Your task to perform on an android device: Open Maps and search for coffee Image 0: 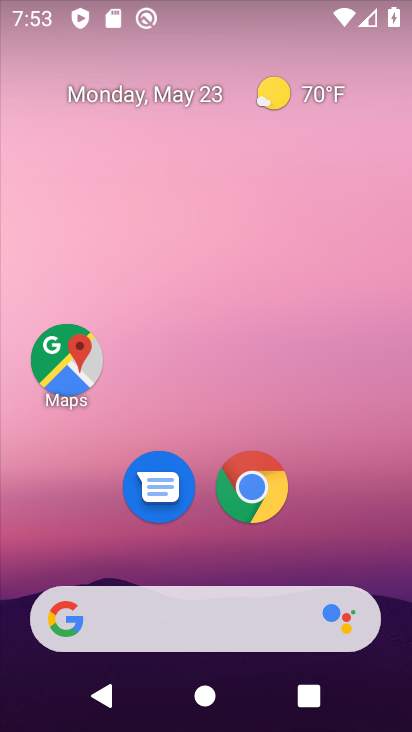
Step 0: click (70, 376)
Your task to perform on an android device: Open Maps and search for coffee Image 1: 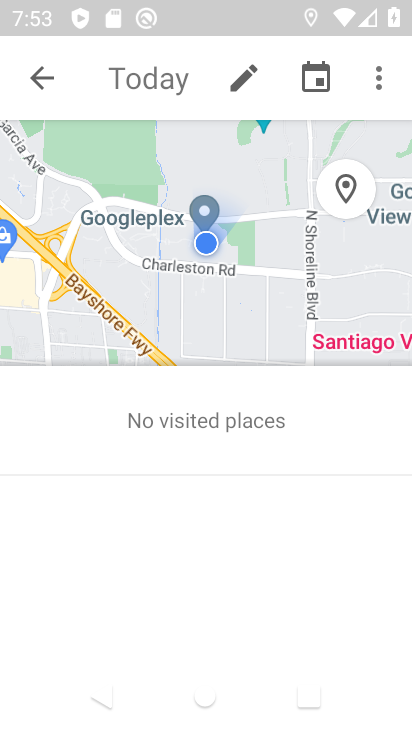
Step 1: press home button
Your task to perform on an android device: Open Maps and search for coffee Image 2: 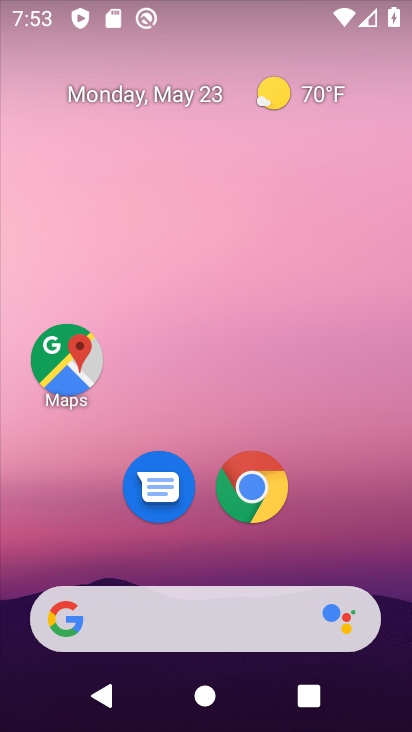
Step 2: click (69, 358)
Your task to perform on an android device: Open Maps and search for coffee Image 3: 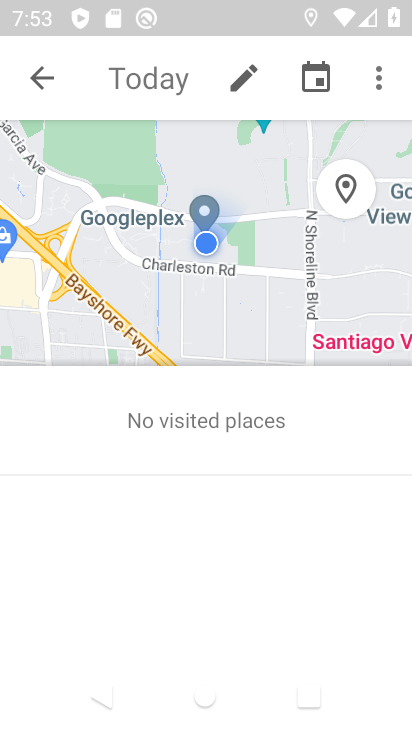
Step 3: click (33, 84)
Your task to perform on an android device: Open Maps and search for coffee Image 4: 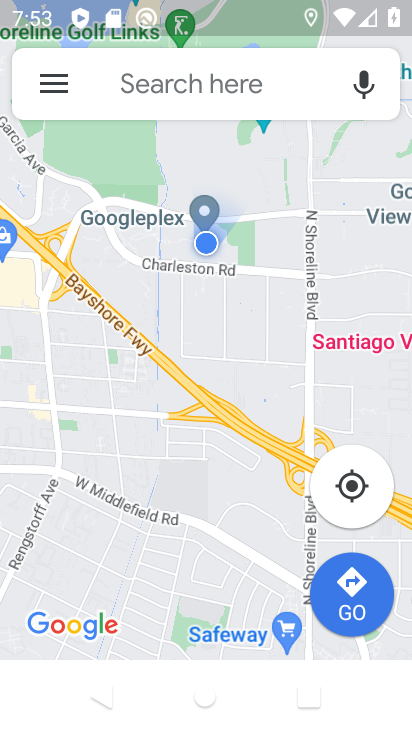
Step 4: click (170, 74)
Your task to perform on an android device: Open Maps and search for coffee Image 5: 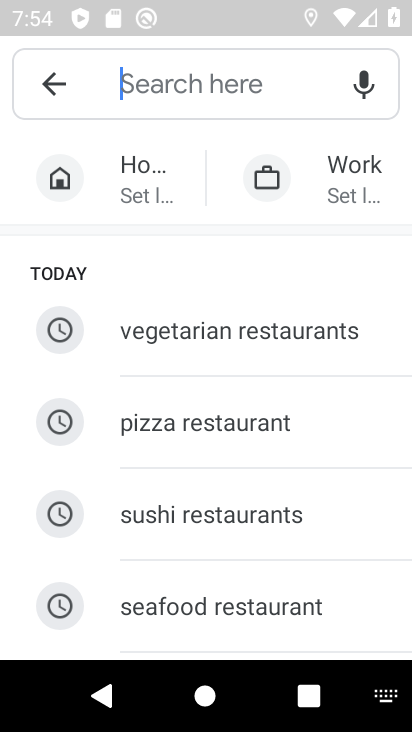
Step 5: type "coffee"
Your task to perform on an android device: Open Maps and search for coffee Image 6: 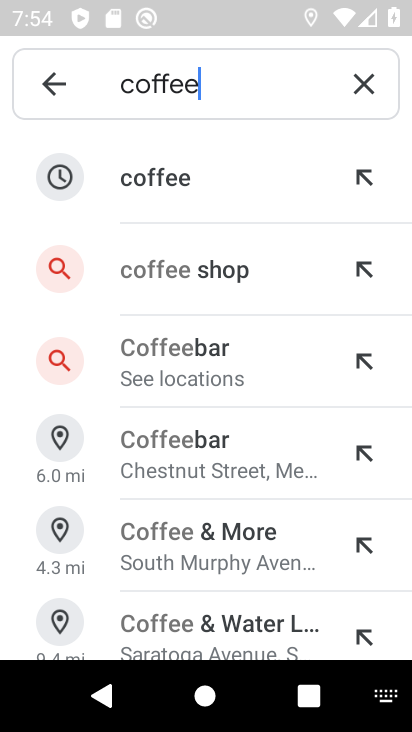
Step 6: click (222, 273)
Your task to perform on an android device: Open Maps and search for coffee Image 7: 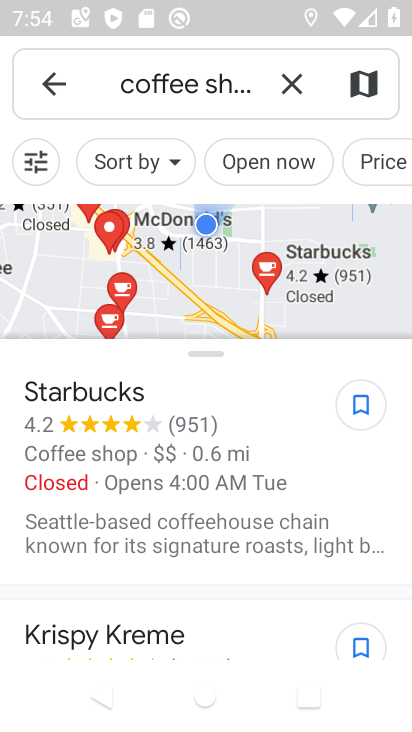
Step 7: drag from (196, 540) to (194, 261)
Your task to perform on an android device: Open Maps and search for coffee Image 8: 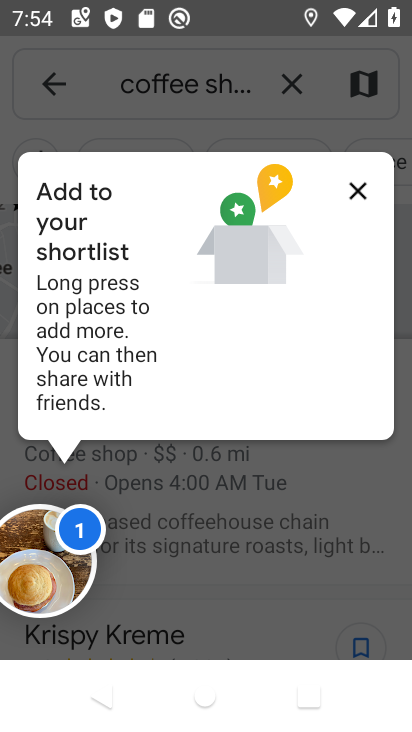
Step 8: click (359, 197)
Your task to perform on an android device: Open Maps and search for coffee Image 9: 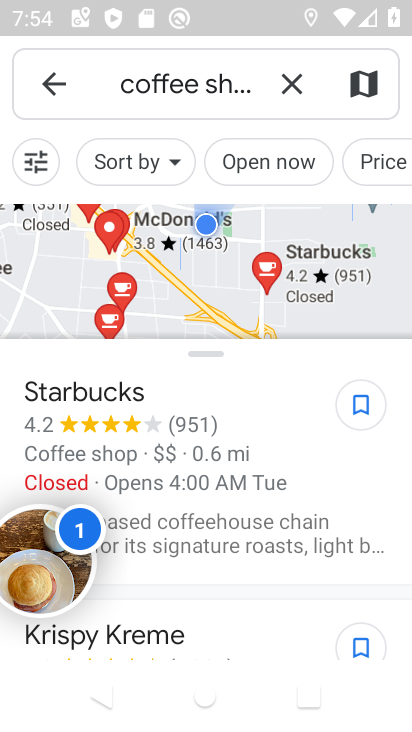
Step 9: task complete